Your task to perform on an android device: check out phone information Image 0: 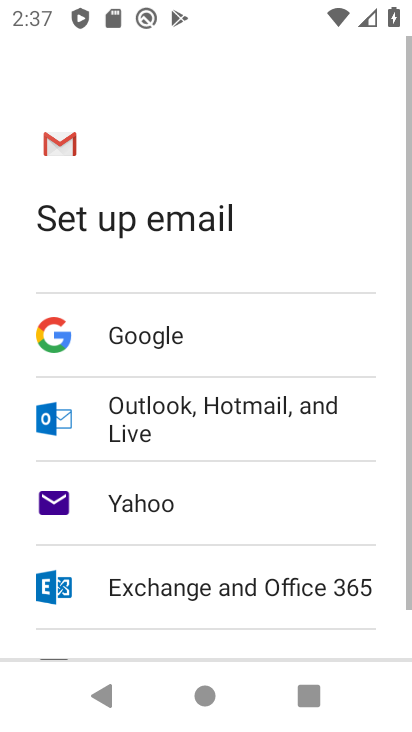
Step 0: press back button
Your task to perform on an android device: check out phone information Image 1: 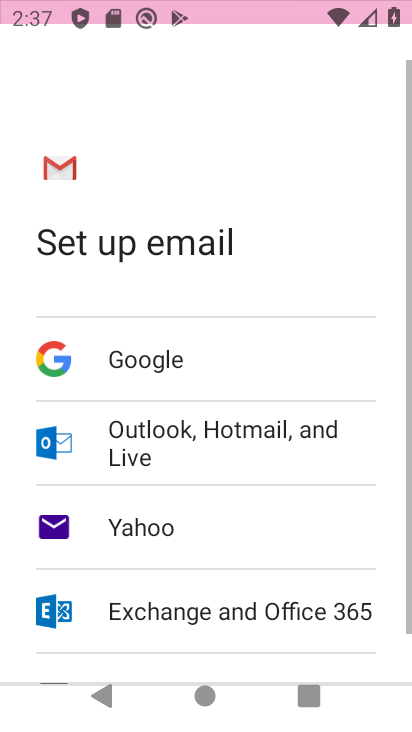
Step 1: press back button
Your task to perform on an android device: check out phone information Image 2: 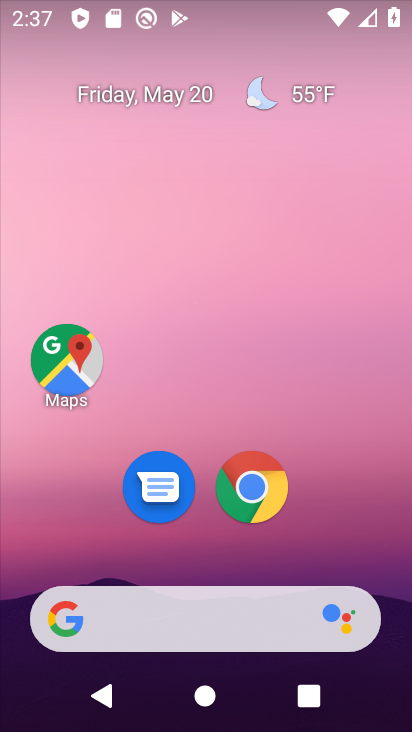
Step 2: drag from (252, 664) to (247, 42)
Your task to perform on an android device: check out phone information Image 3: 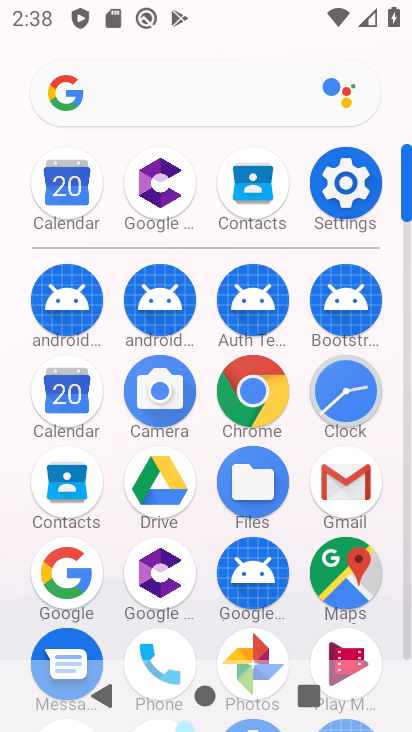
Step 3: drag from (280, 553) to (276, 211)
Your task to perform on an android device: check out phone information Image 4: 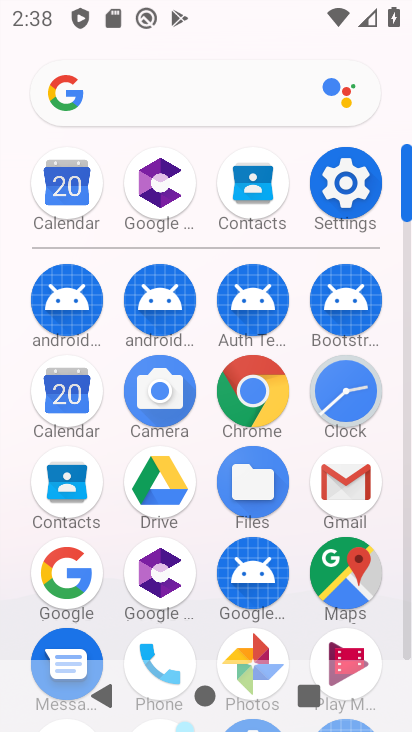
Step 4: drag from (300, 346) to (292, 163)
Your task to perform on an android device: check out phone information Image 5: 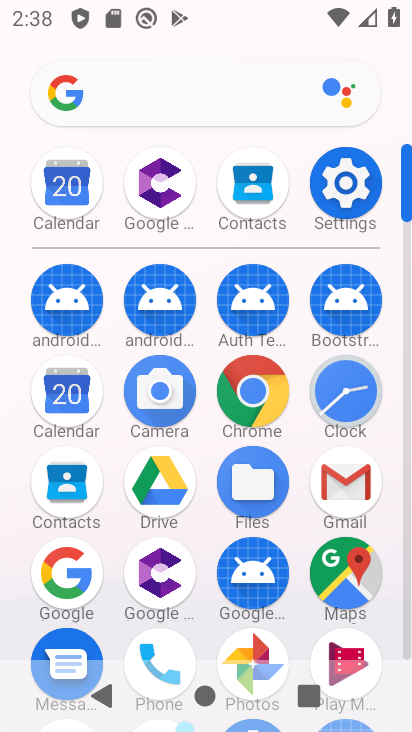
Step 5: drag from (252, 551) to (250, 211)
Your task to perform on an android device: check out phone information Image 6: 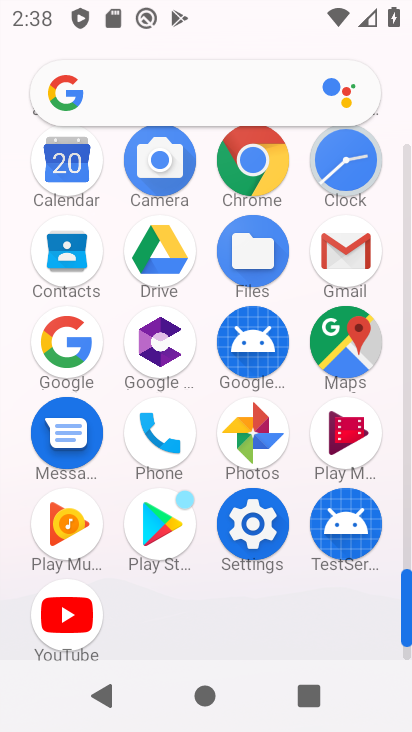
Step 6: drag from (233, 540) to (246, 256)
Your task to perform on an android device: check out phone information Image 7: 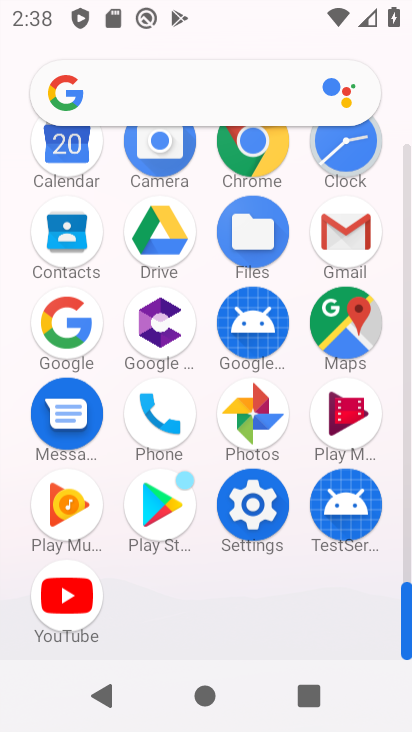
Step 7: drag from (281, 615) to (281, 282)
Your task to perform on an android device: check out phone information Image 8: 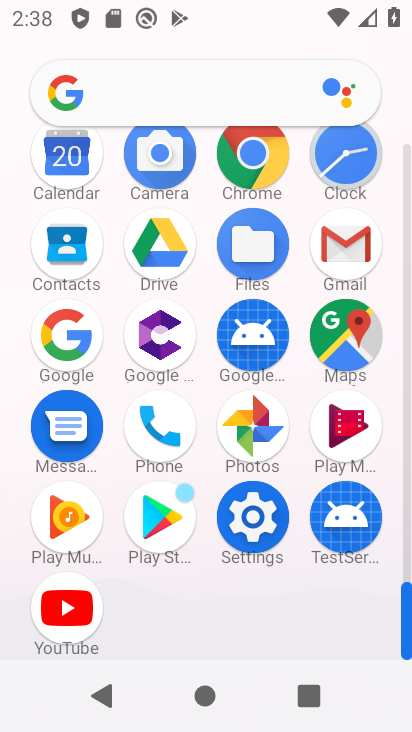
Step 8: drag from (199, 244) to (197, 544)
Your task to perform on an android device: check out phone information Image 9: 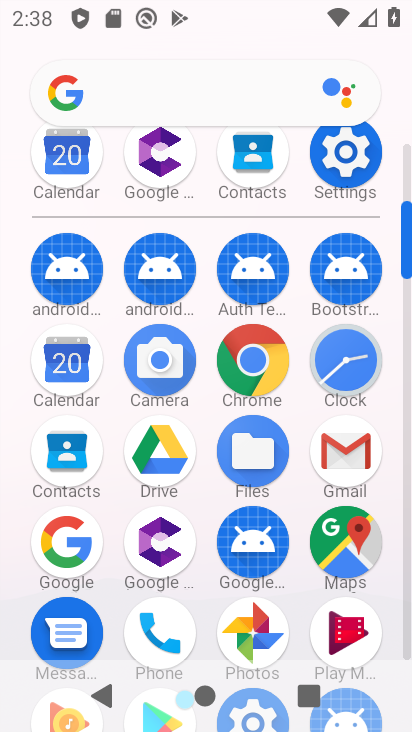
Step 9: drag from (203, 585) to (253, 356)
Your task to perform on an android device: check out phone information Image 10: 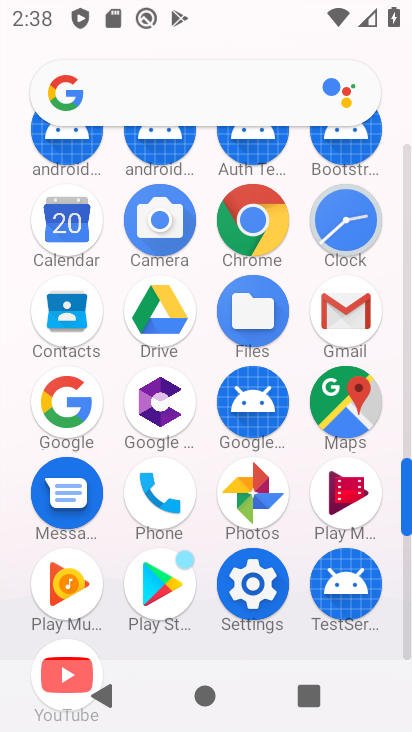
Step 10: drag from (223, 555) to (223, 308)
Your task to perform on an android device: check out phone information Image 11: 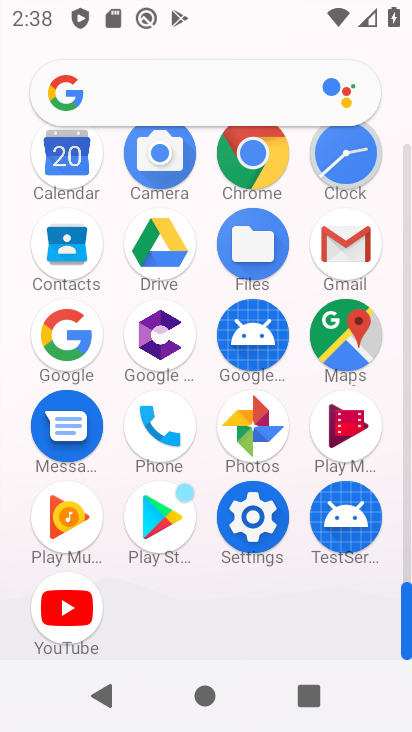
Step 11: drag from (222, 229) to (213, 553)
Your task to perform on an android device: check out phone information Image 12: 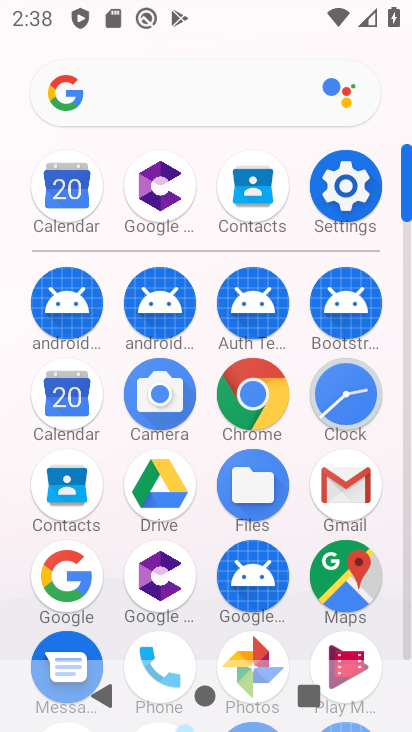
Step 12: drag from (196, 307) to (196, 554)
Your task to perform on an android device: check out phone information Image 13: 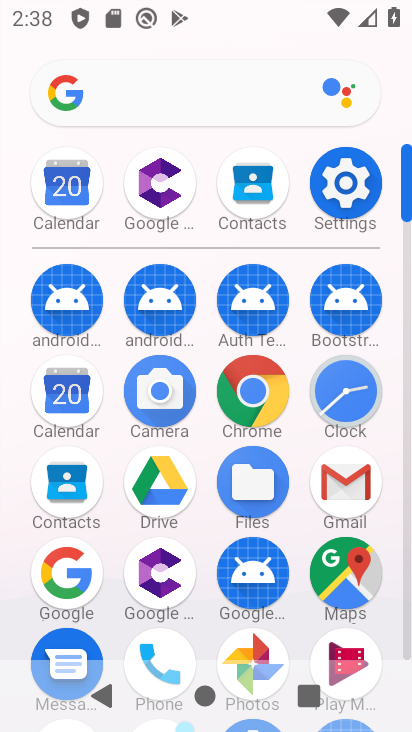
Step 13: click (330, 184)
Your task to perform on an android device: check out phone information Image 14: 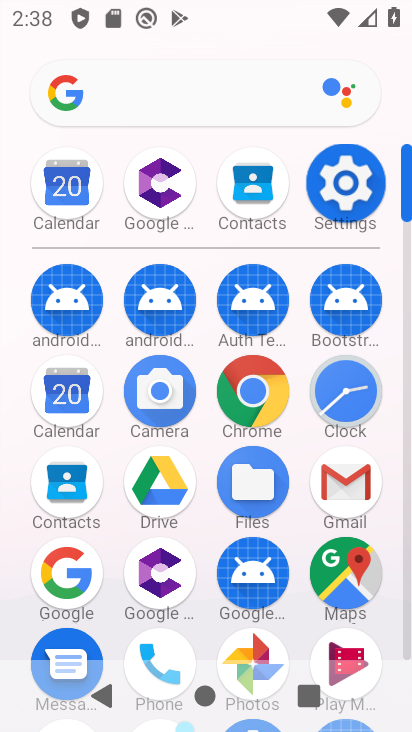
Step 14: click (330, 184)
Your task to perform on an android device: check out phone information Image 15: 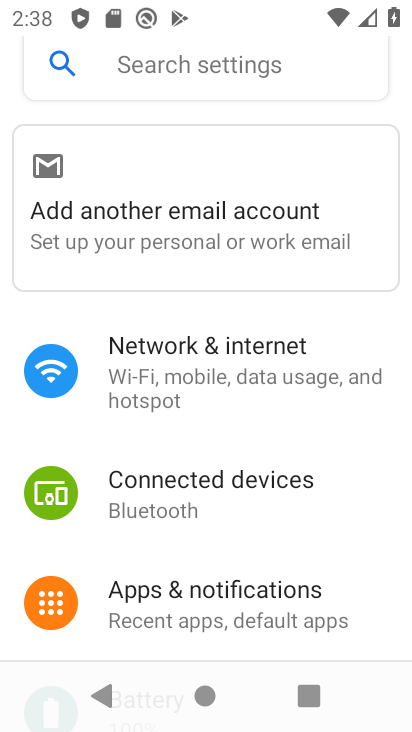
Step 15: drag from (195, 536) to (218, 279)
Your task to perform on an android device: check out phone information Image 16: 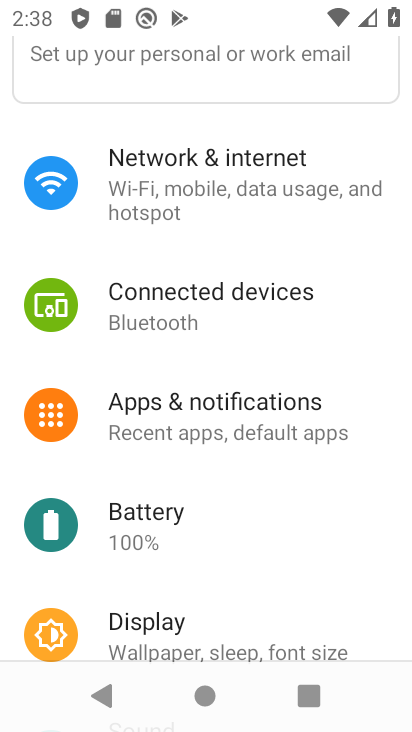
Step 16: drag from (211, 424) to (211, 231)
Your task to perform on an android device: check out phone information Image 17: 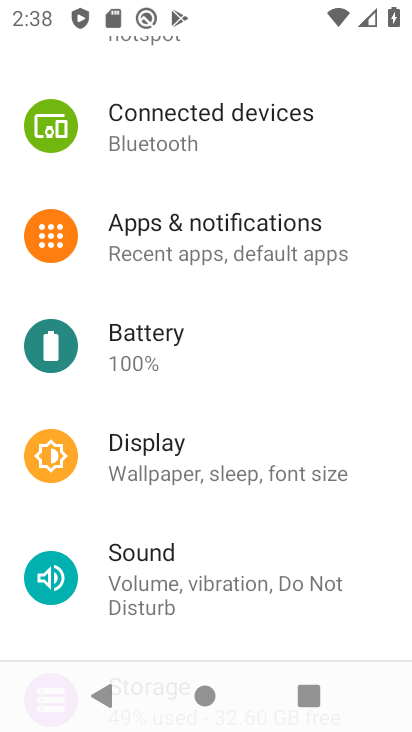
Step 17: drag from (188, 500) to (215, 272)
Your task to perform on an android device: check out phone information Image 18: 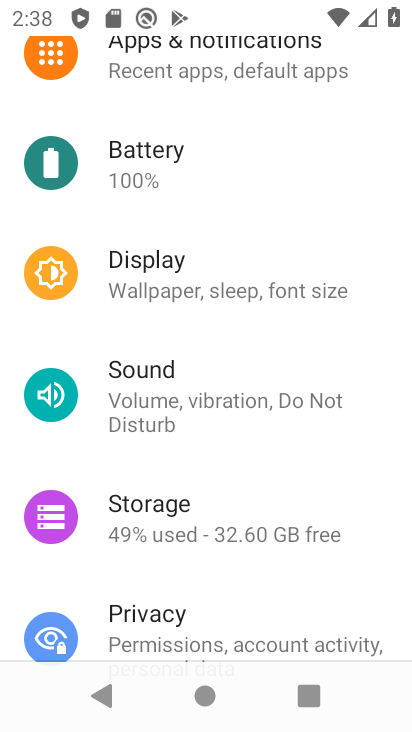
Step 18: drag from (221, 482) to (221, 215)
Your task to perform on an android device: check out phone information Image 19: 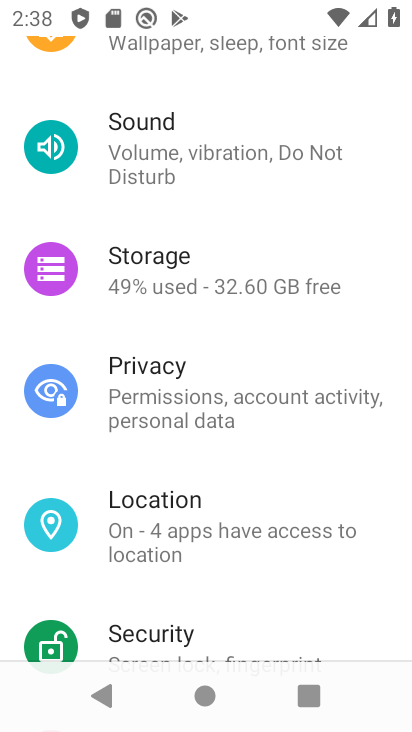
Step 19: drag from (216, 373) to (202, 205)
Your task to perform on an android device: check out phone information Image 20: 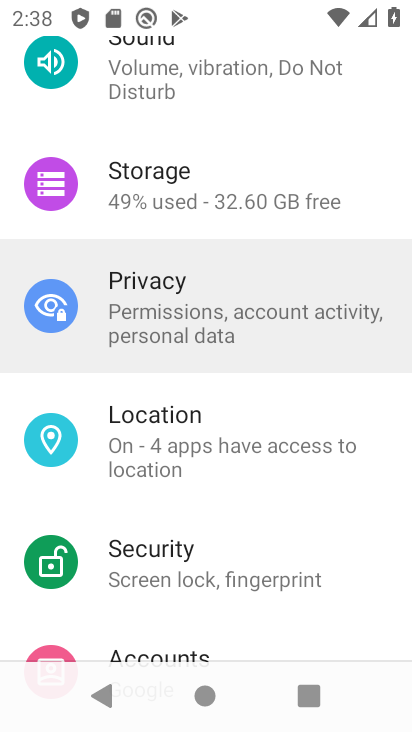
Step 20: drag from (182, 473) to (204, 255)
Your task to perform on an android device: check out phone information Image 21: 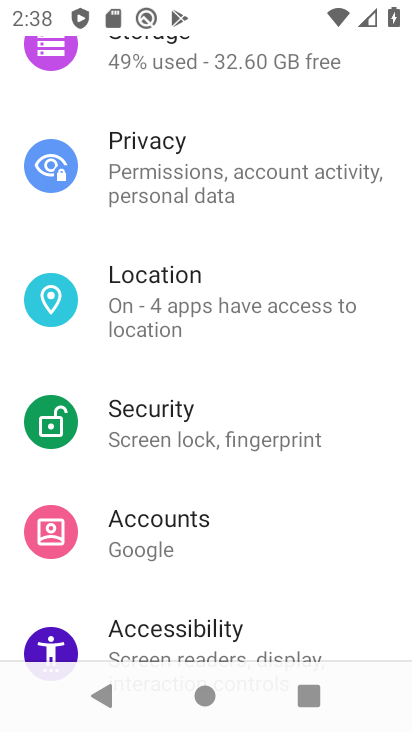
Step 21: drag from (196, 479) to (186, 201)
Your task to perform on an android device: check out phone information Image 22: 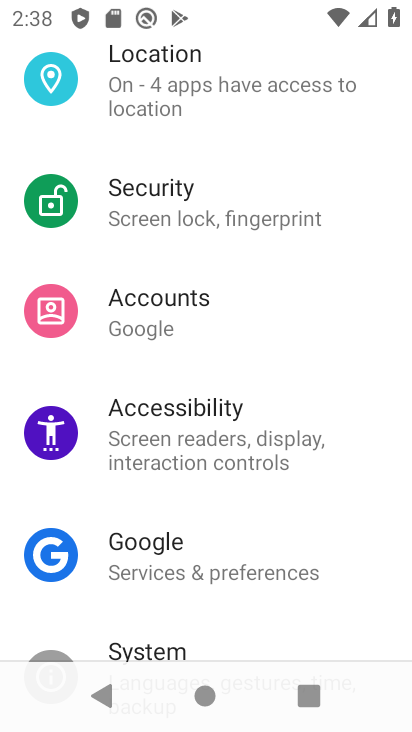
Step 22: drag from (172, 516) to (167, 194)
Your task to perform on an android device: check out phone information Image 23: 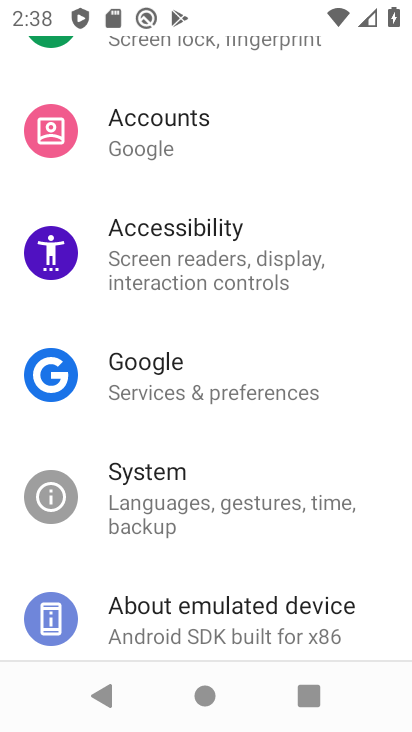
Step 23: click (142, 104)
Your task to perform on an android device: check out phone information Image 24: 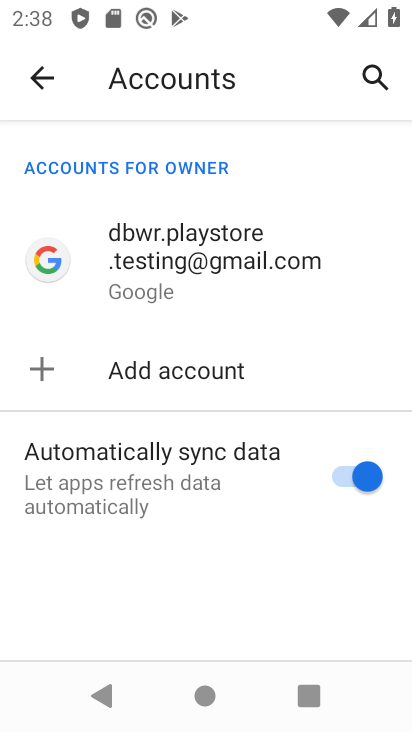
Step 24: click (42, 80)
Your task to perform on an android device: check out phone information Image 25: 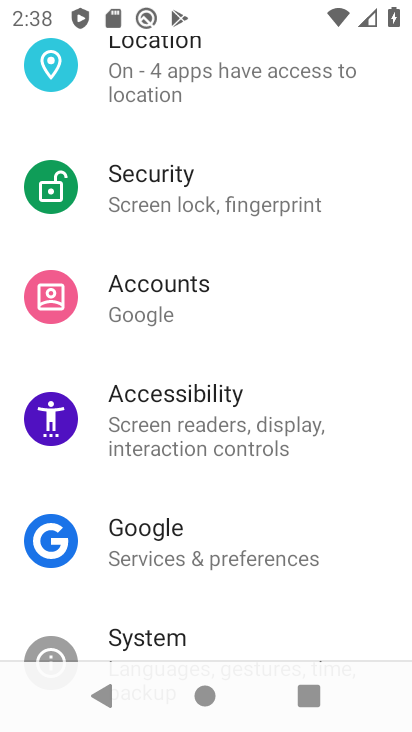
Step 25: drag from (224, 394) to (249, 267)
Your task to perform on an android device: check out phone information Image 26: 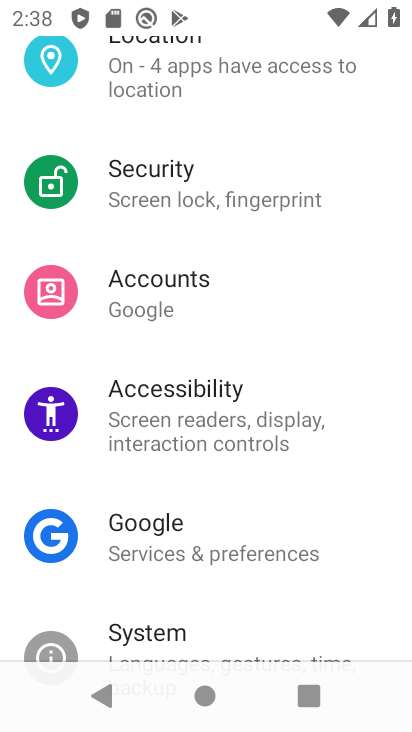
Step 26: drag from (220, 430) to (220, 135)
Your task to perform on an android device: check out phone information Image 27: 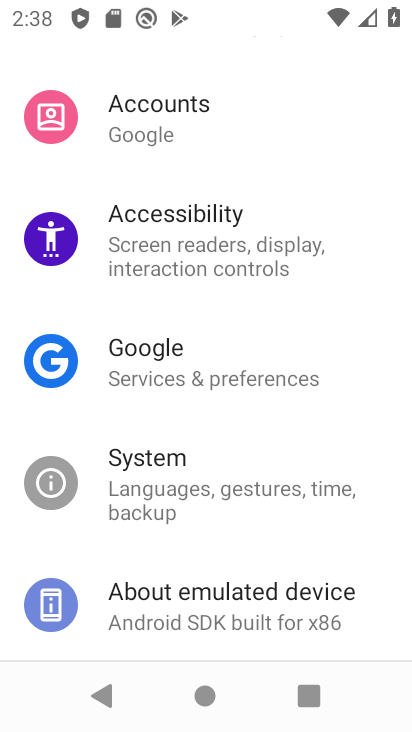
Step 27: drag from (187, 342) to (151, 51)
Your task to perform on an android device: check out phone information Image 28: 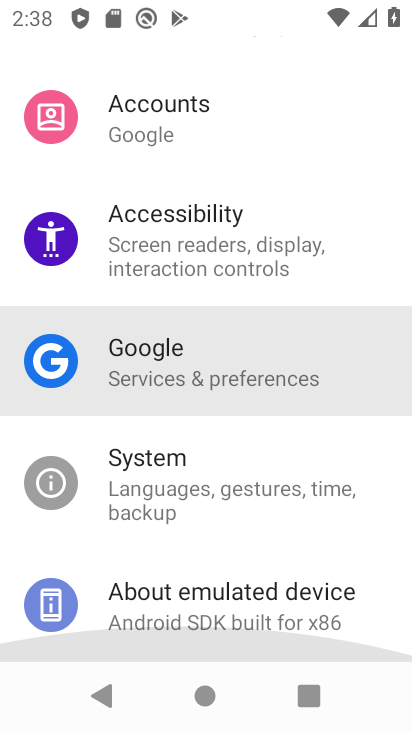
Step 28: drag from (122, 520) to (96, 158)
Your task to perform on an android device: check out phone information Image 29: 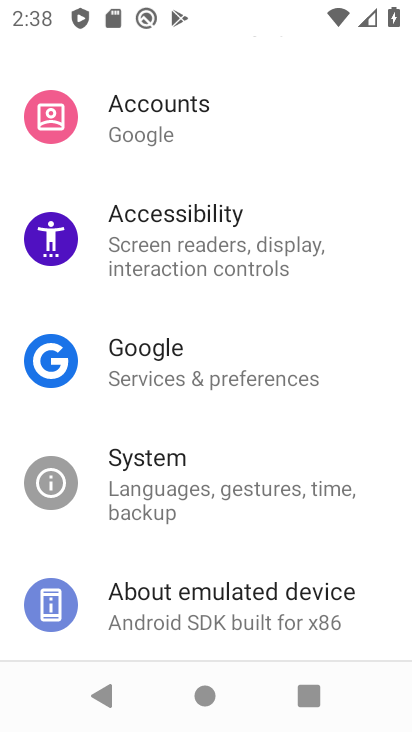
Step 29: click (203, 605)
Your task to perform on an android device: check out phone information Image 30: 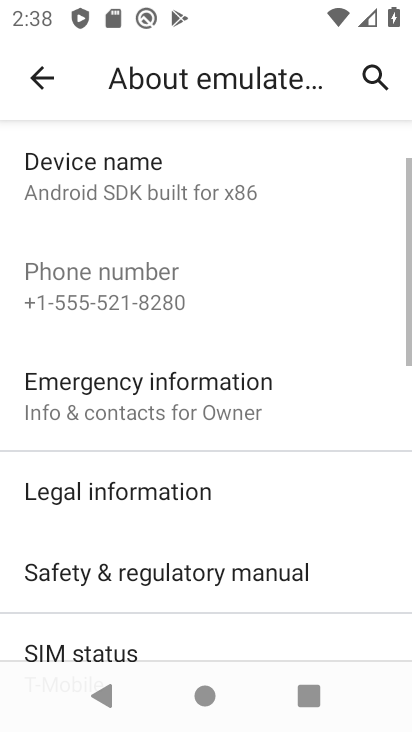
Step 30: task complete